Your task to perform on an android device: Go to Google Image 0: 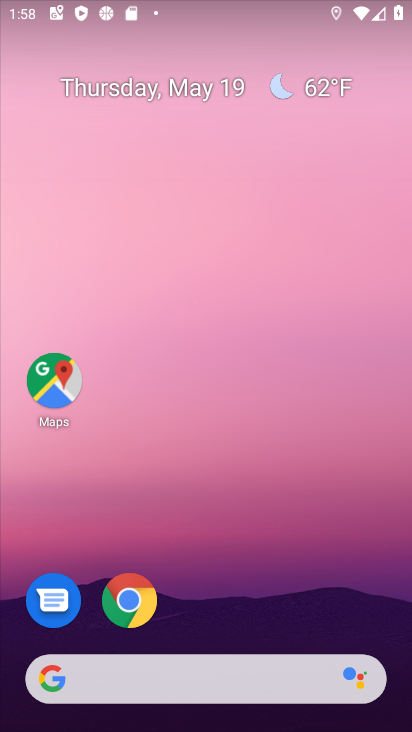
Step 0: press home button
Your task to perform on an android device: Go to Google Image 1: 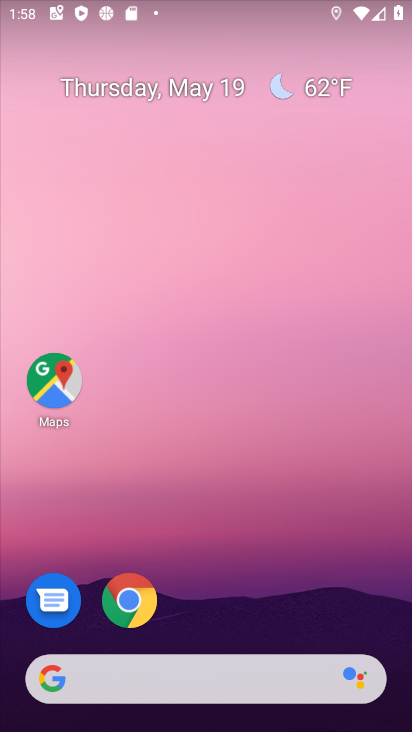
Step 1: click (42, 685)
Your task to perform on an android device: Go to Google Image 2: 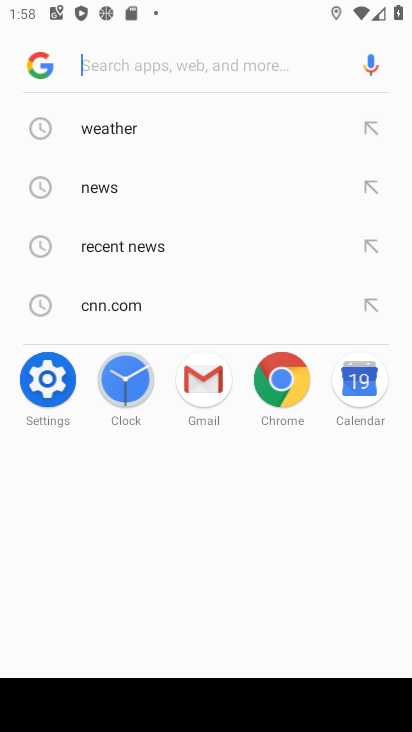
Step 2: click (44, 62)
Your task to perform on an android device: Go to Google Image 3: 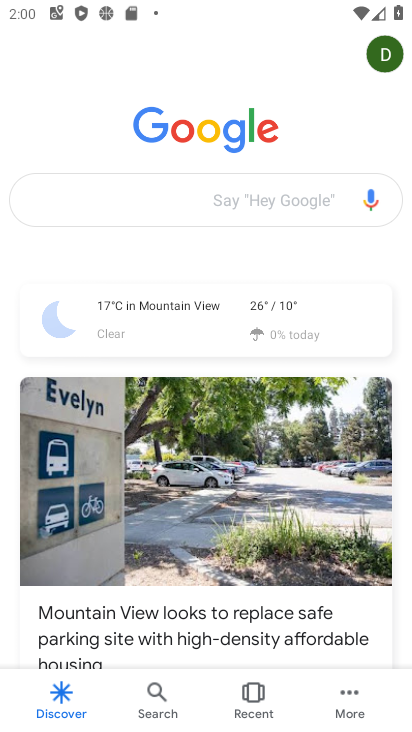
Step 3: task complete